Your task to perform on an android device: turn off location Image 0: 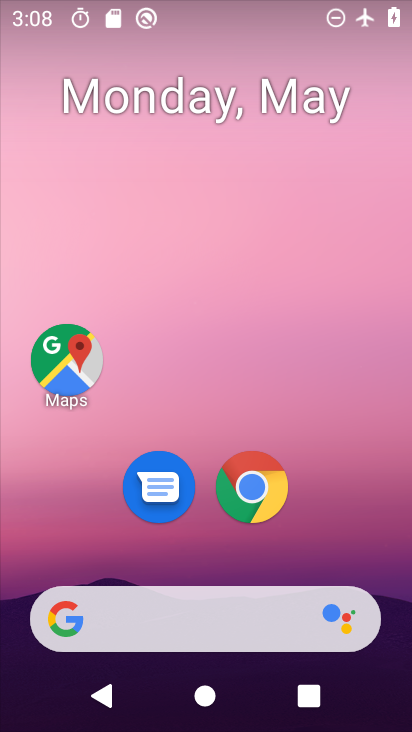
Step 0: drag from (269, 562) to (198, 88)
Your task to perform on an android device: turn off location Image 1: 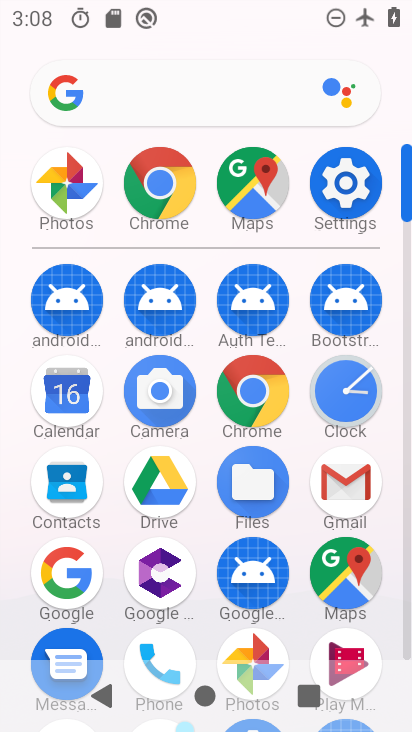
Step 1: click (357, 169)
Your task to perform on an android device: turn off location Image 2: 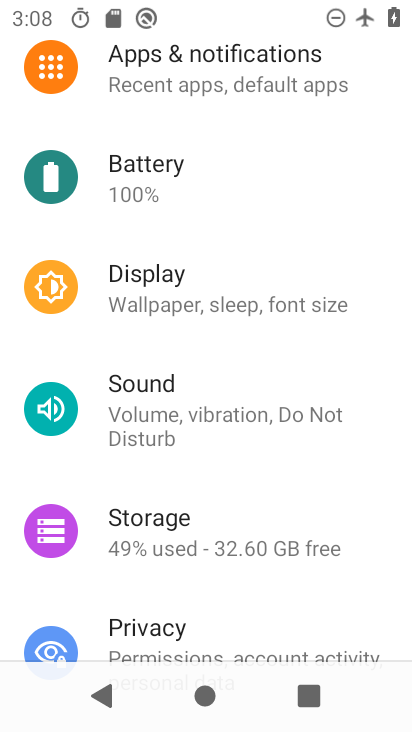
Step 2: drag from (208, 497) to (253, 177)
Your task to perform on an android device: turn off location Image 3: 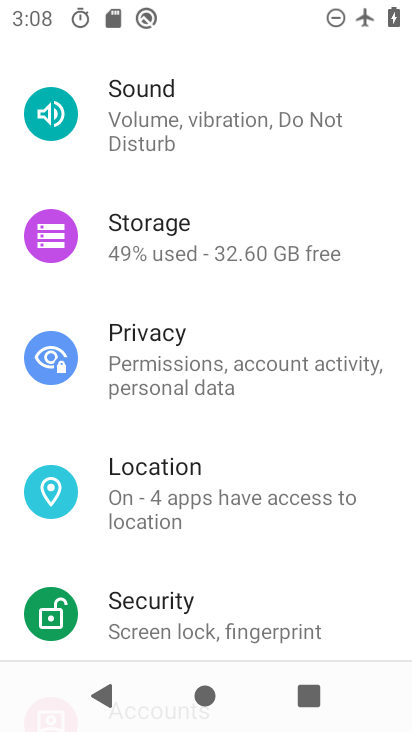
Step 3: click (198, 466)
Your task to perform on an android device: turn off location Image 4: 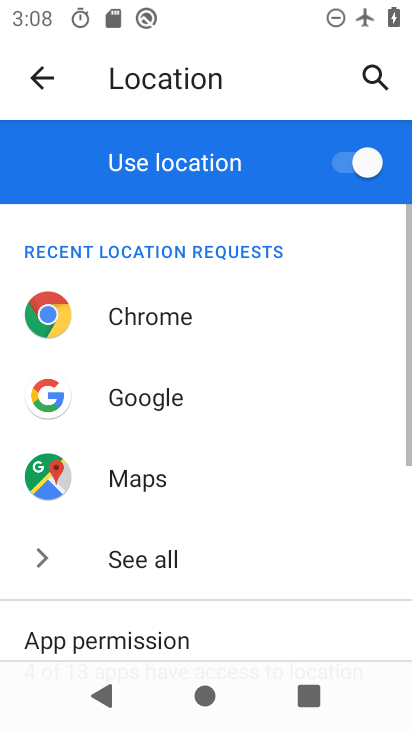
Step 4: drag from (213, 599) to (213, 321)
Your task to perform on an android device: turn off location Image 5: 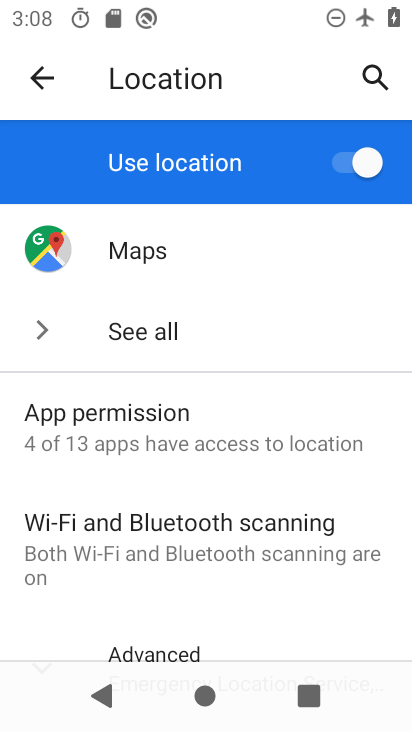
Step 5: drag from (189, 581) to (238, 238)
Your task to perform on an android device: turn off location Image 6: 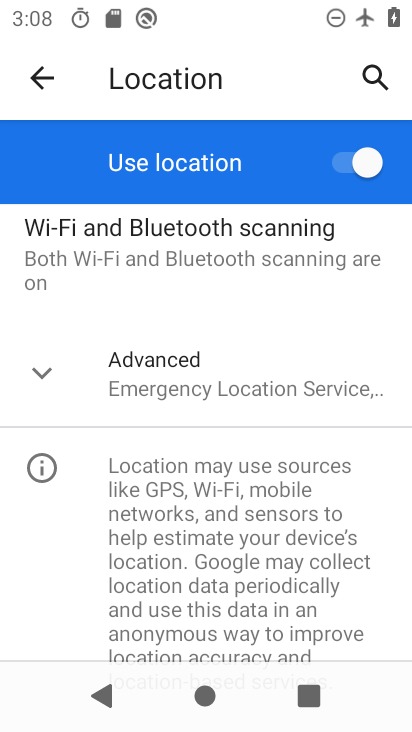
Step 6: click (353, 191)
Your task to perform on an android device: turn off location Image 7: 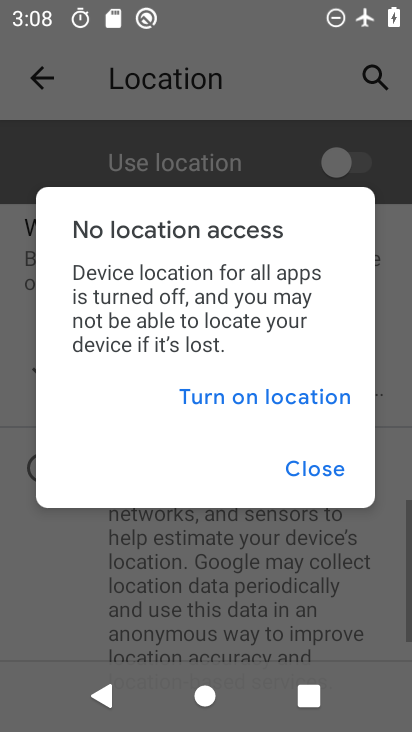
Step 7: task complete